Your task to perform on an android device: Is it going to rain this weekend? Image 0: 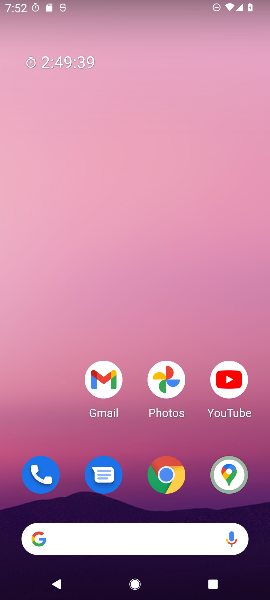
Step 0: press home button
Your task to perform on an android device: Is it going to rain this weekend? Image 1: 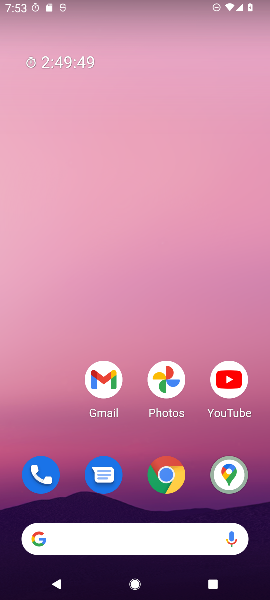
Step 1: click (183, 538)
Your task to perform on an android device: Is it going to rain this weekend? Image 2: 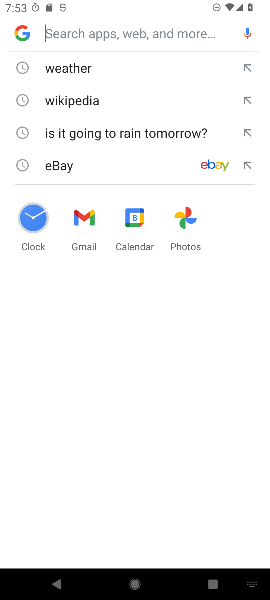
Step 2: click (90, 66)
Your task to perform on an android device: Is it going to rain this weekend? Image 3: 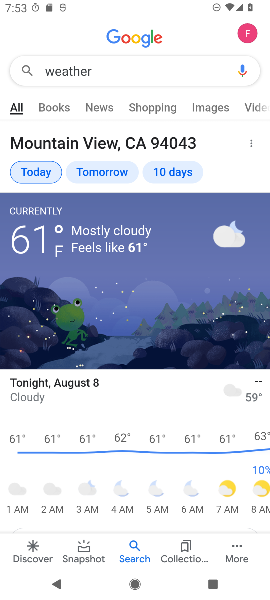
Step 3: click (168, 170)
Your task to perform on an android device: Is it going to rain this weekend? Image 4: 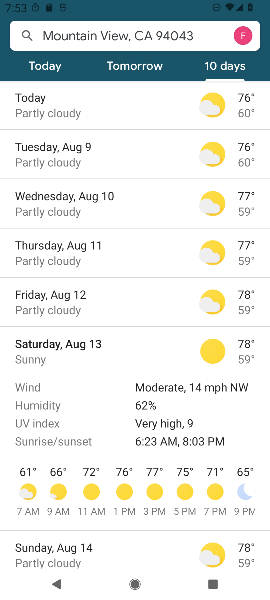
Step 4: task complete